Your task to perform on an android device: manage bookmarks in the chrome app Image 0: 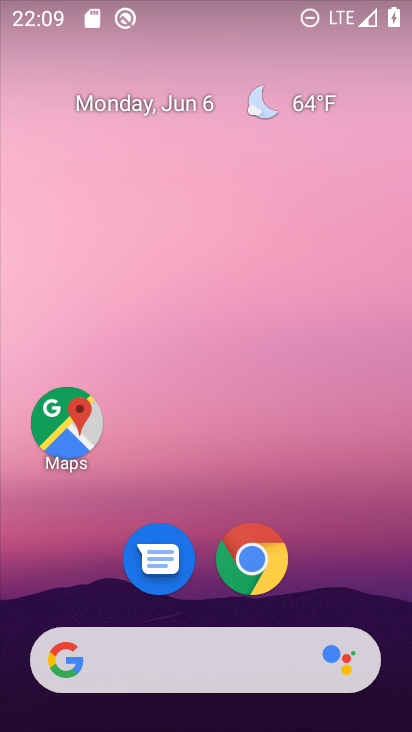
Step 0: click (245, 567)
Your task to perform on an android device: manage bookmarks in the chrome app Image 1: 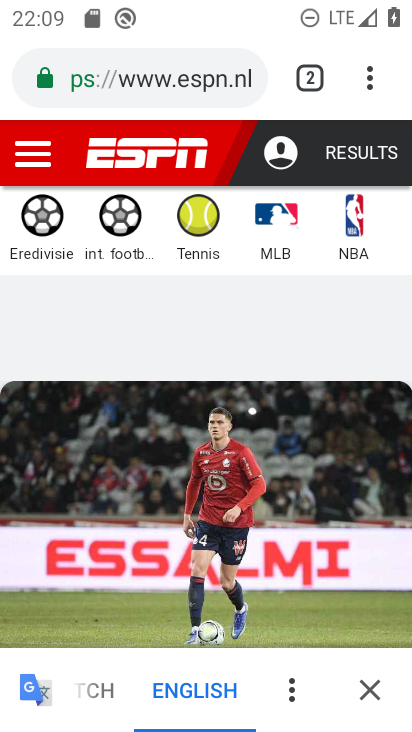
Step 1: click (369, 85)
Your task to perform on an android device: manage bookmarks in the chrome app Image 2: 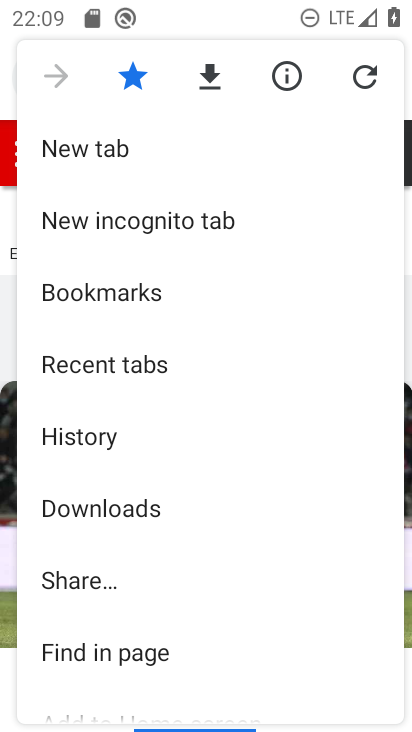
Step 2: click (111, 295)
Your task to perform on an android device: manage bookmarks in the chrome app Image 3: 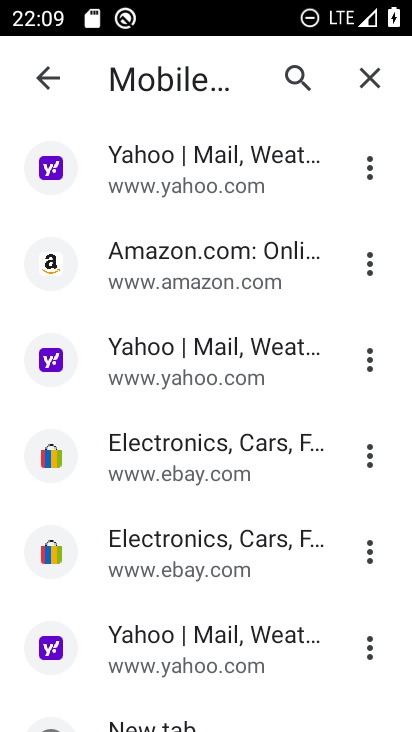
Step 3: click (370, 357)
Your task to perform on an android device: manage bookmarks in the chrome app Image 4: 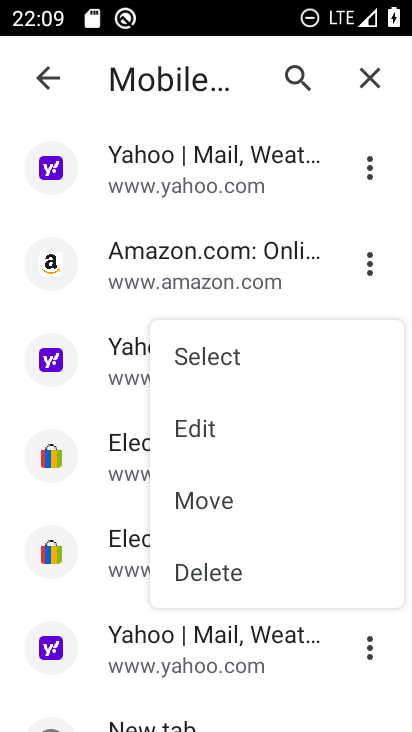
Step 4: click (217, 424)
Your task to perform on an android device: manage bookmarks in the chrome app Image 5: 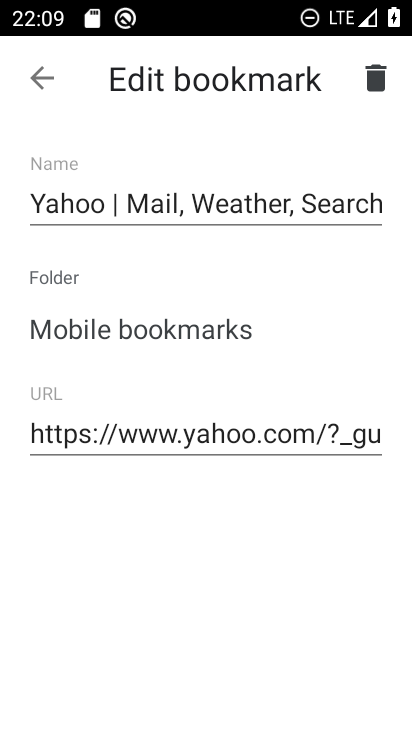
Step 5: click (204, 205)
Your task to perform on an android device: manage bookmarks in the chrome app Image 6: 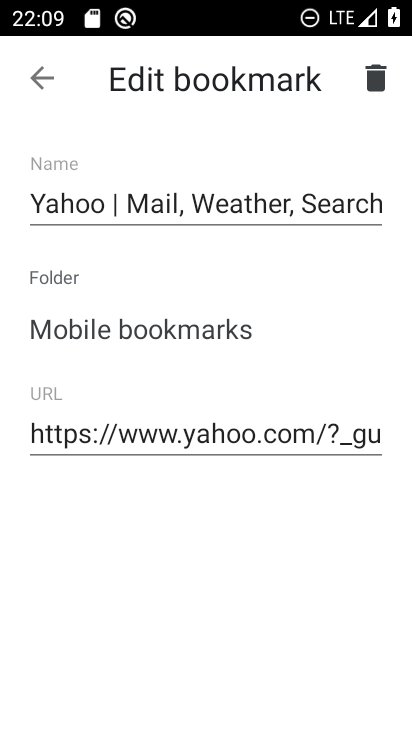
Step 6: click (204, 205)
Your task to perform on an android device: manage bookmarks in the chrome app Image 7: 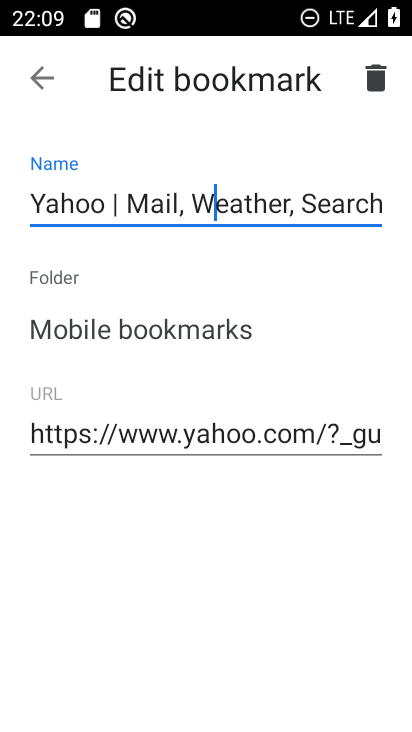
Step 7: click (204, 205)
Your task to perform on an android device: manage bookmarks in the chrome app Image 8: 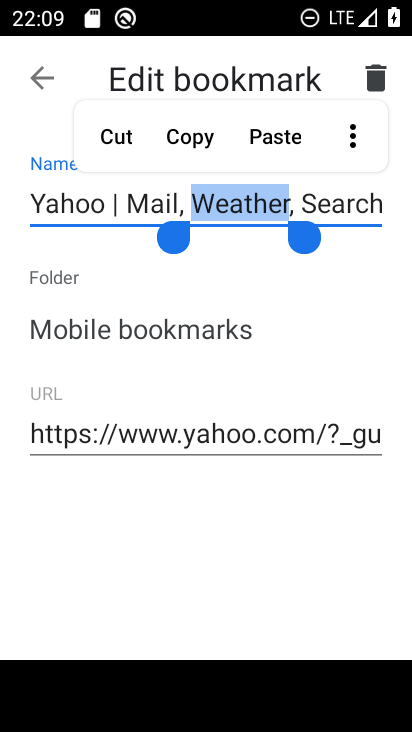
Step 8: click (118, 135)
Your task to perform on an android device: manage bookmarks in the chrome app Image 9: 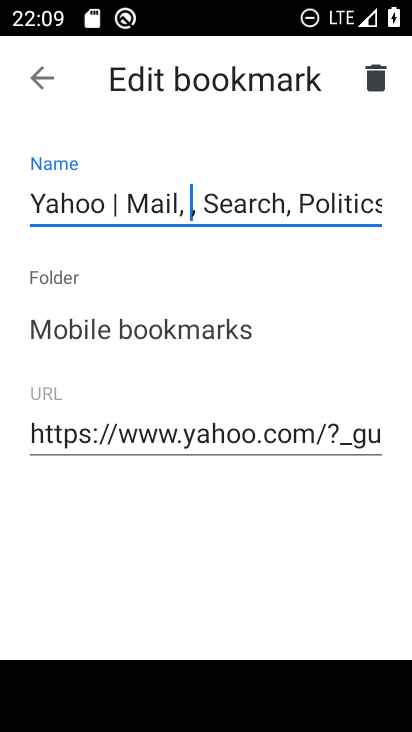
Step 9: click (43, 75)
Your task to perform on an android device: manage bookmarks in the chrome app Image 10: 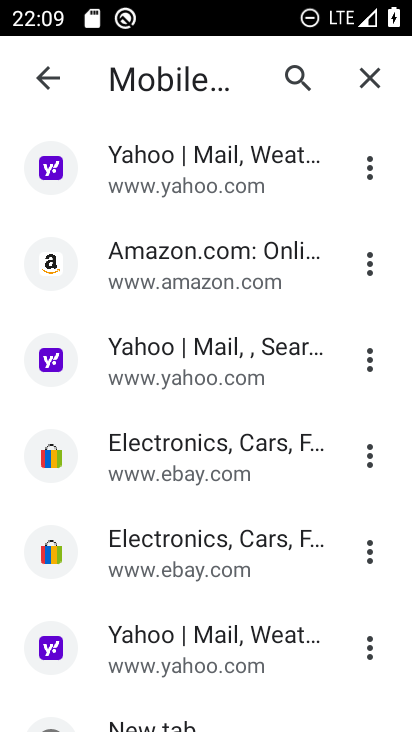
Step 10: task complete